Your task to perform on an android device: change timer sound Image 0: 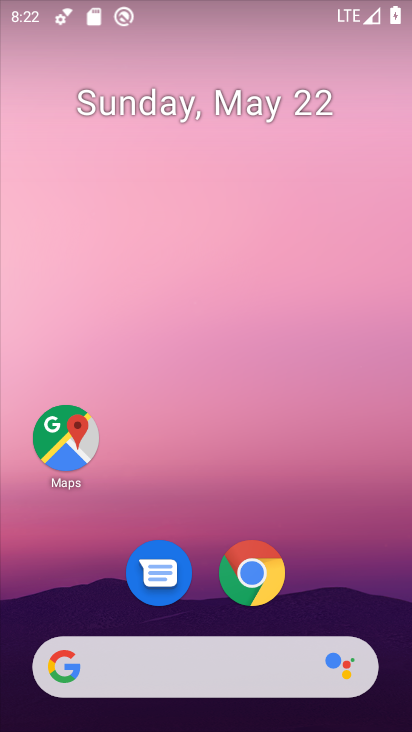
Step 0: drag from (345, 20) to (269, 7)
Your task to perform on an android device: change timer sound Image 1: 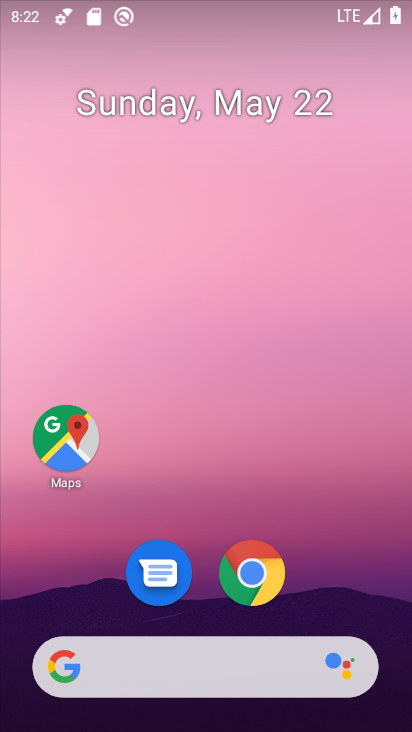
Step 1: drag from (213, 574) to (257, 138)
Your task to perform on an android device: change timer sound Image 2: 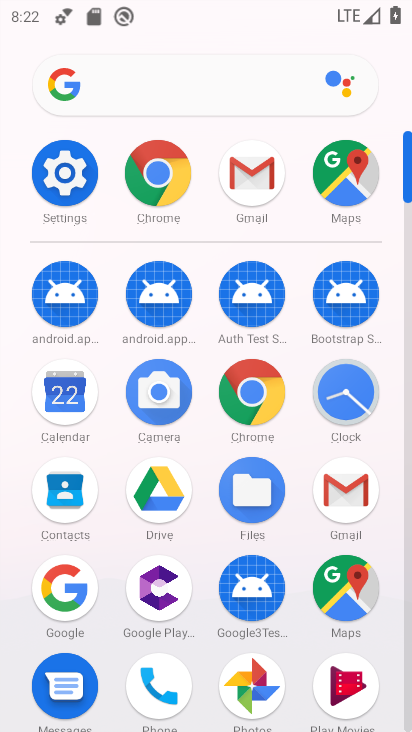
Step 2: click (330, 356)
Your task to perform on an android device: change timer sound Image 3: 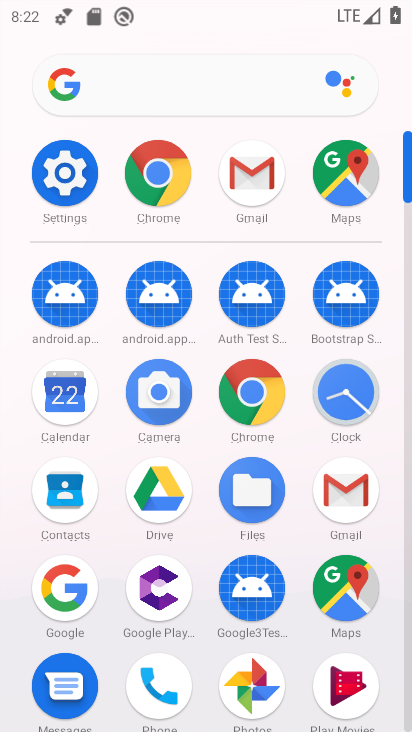
Step 3: click (330, 356)
Your task to perform on an android device: change timer sound Image 4: 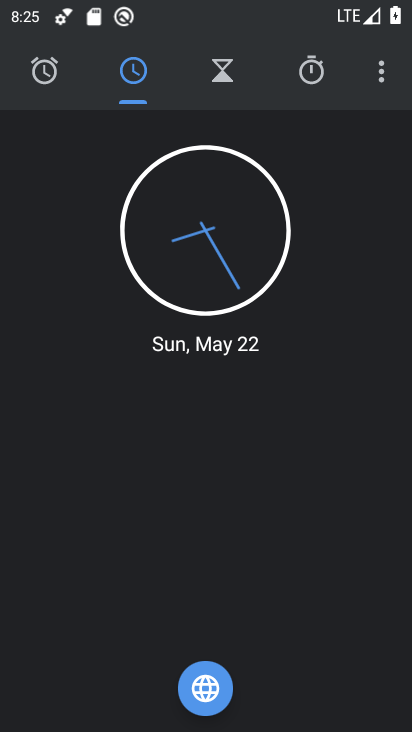
Step 4: click (385, 86)
Your task to perform on an android device: change timer sound Image 5: 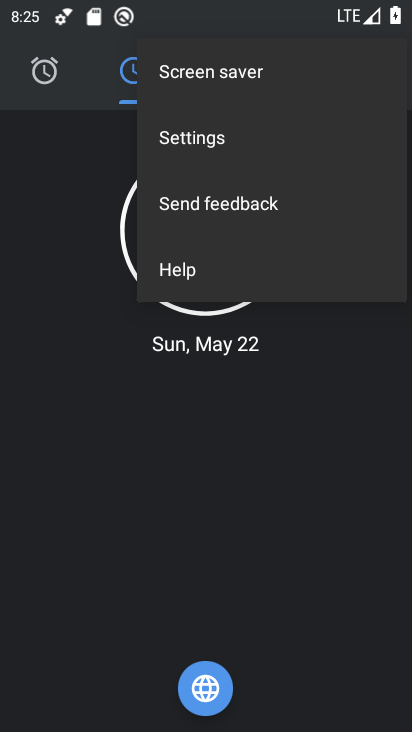
Step 5: click (192, 138)
Your task to perform on an android device: change timer sound Image 6: 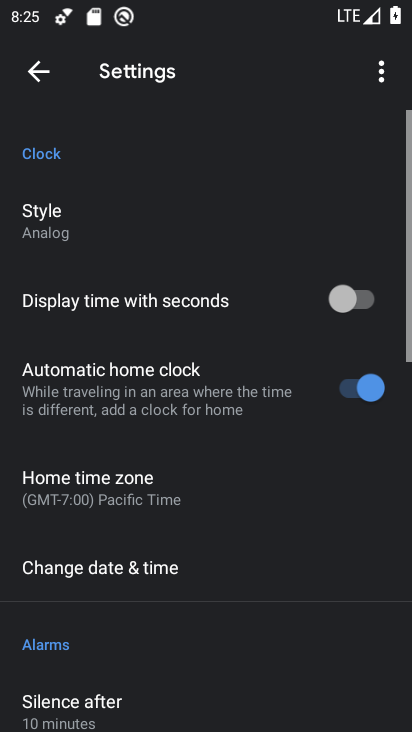
Step 6: drag from (190, 627) to (247, 16)
Your task to perform on an android device: change timer sound Image 7: 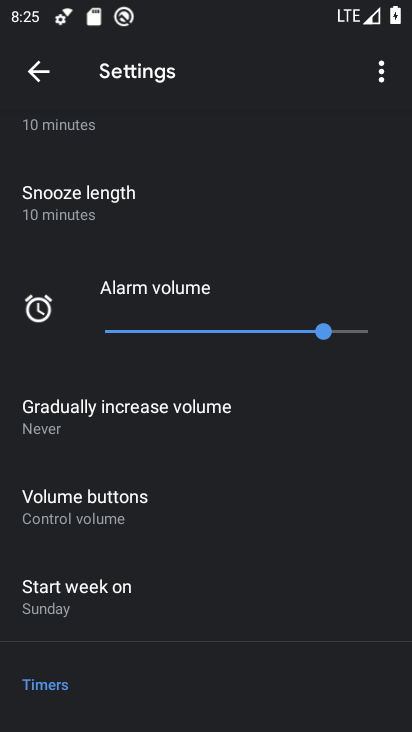
Step 7: drag from (196, 593) to (219, 71)
Your task to perform on an android device: change timer sound Image 8: 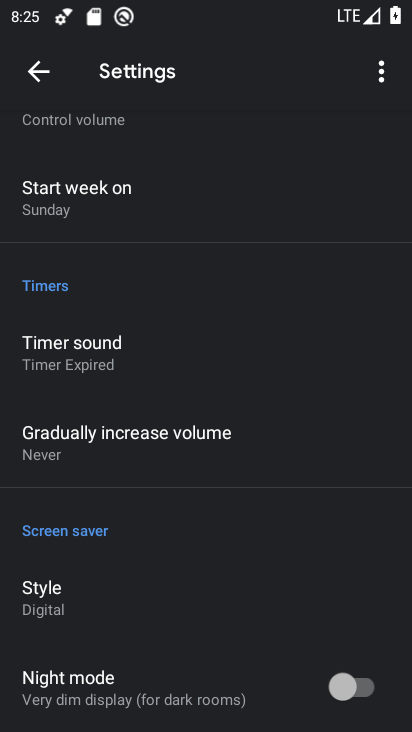
Step 8: drag from (154, 614) to (207, 124)
Your task to perform on an android device: change timer sound Image 9: 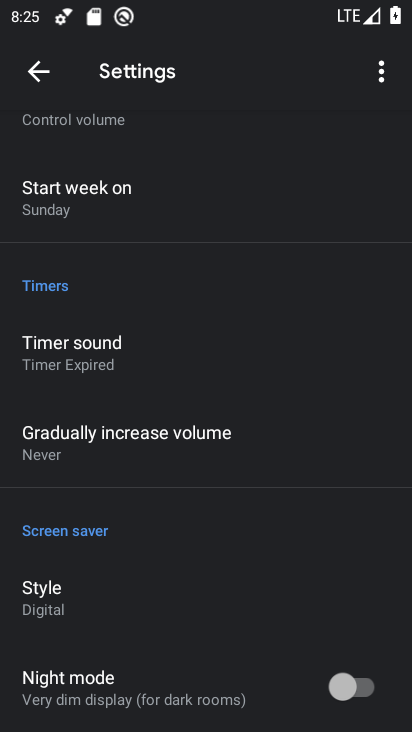
Step 9: click (63, 384)
Your task to perform on an android device: change timer sound Image 10: 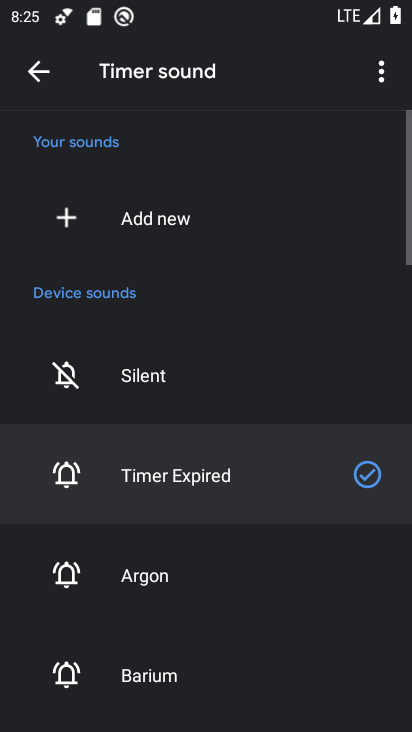
Step 10: click (185, 678)
Your task to perform on an android device: change timer sound Image 11: 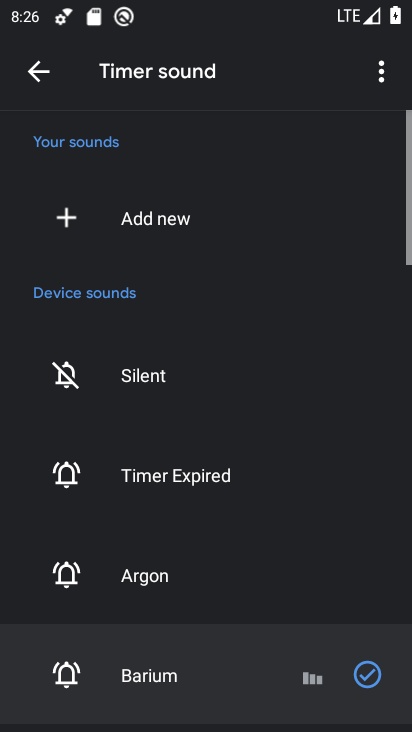
Step 11: task complete